Your task to perform on an android device: remove spam from my inbox in the gmail app Image 0: 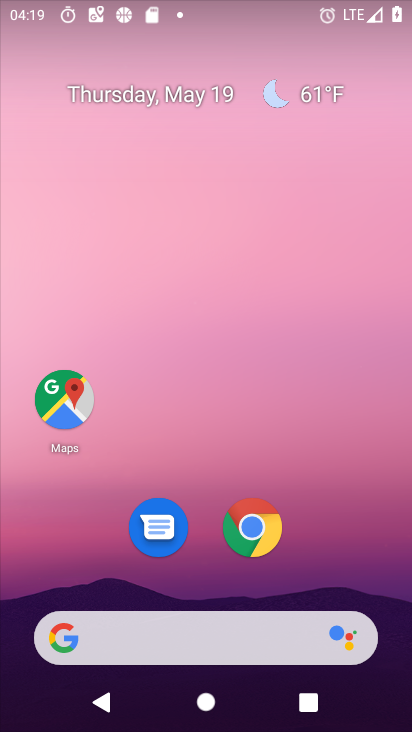
Step 0: drag from (245, 526) to (280, 29)
Your task to perform on an android device: remove spam from my inbox in the gmail app Image 1: 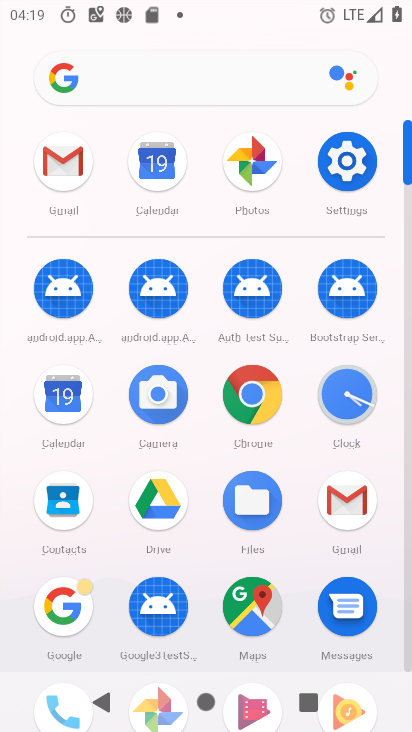
Step 1: click (55, 155)
Your task to perform on an android device: remove spam from my inbox in the gmail app Image 2: 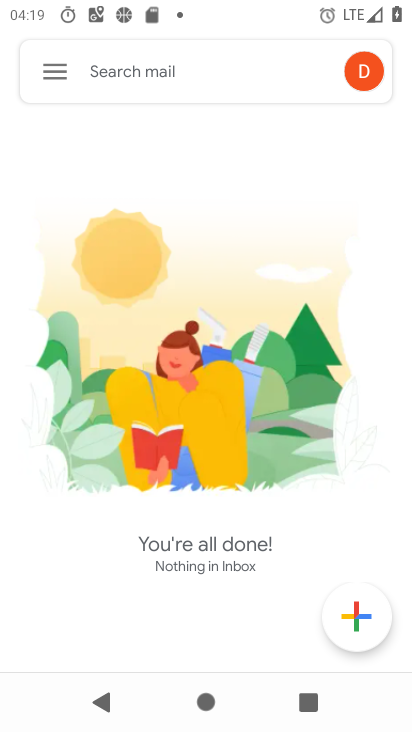
Step 2: click (53, 71)
Your task to perform on an android device: remove spam from my inbox in the gmail app Image 3: 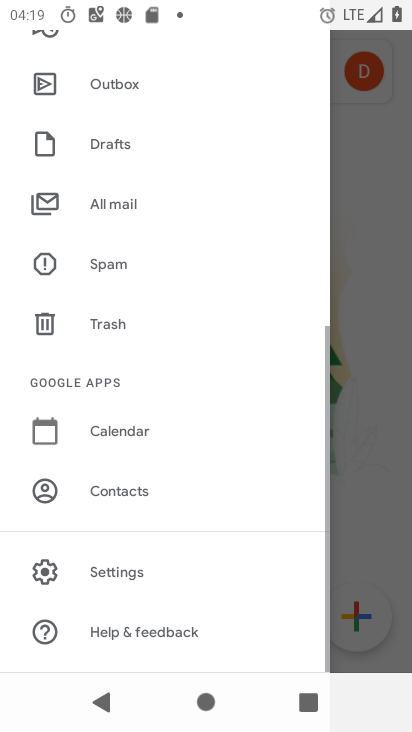
Step 3: click (126, 255)
Your task to perform on an android device: remove spam from my inbox in the gmail app Image 4: 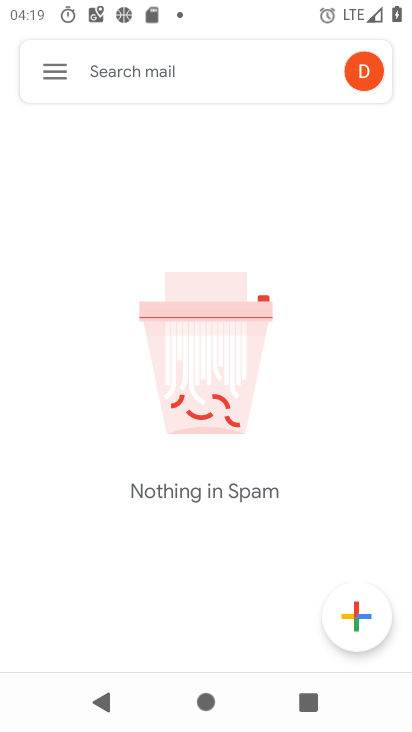
Step 4: task complete